Your task to perform on an android device: toggle sleep mode Image 0: 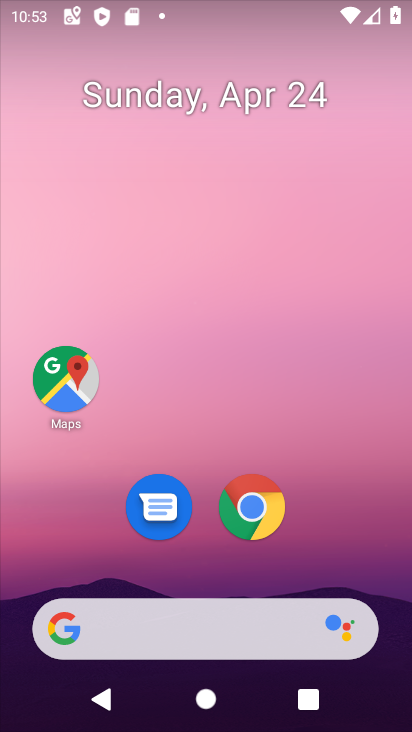
Step 0: drag from (359, 555) to (341, 101)
Your task to perform on an android device: toggle sleep mode Image 1: 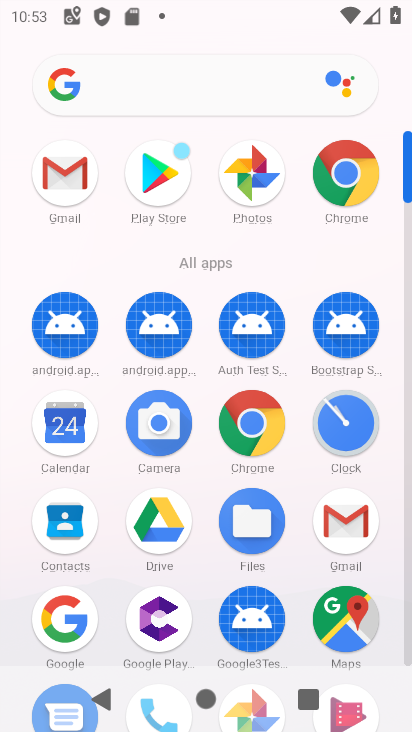
Step 1: drag from (323, 4) to (374, 685)
Your task to perform on an android device: toggle sleep mode Image 2: 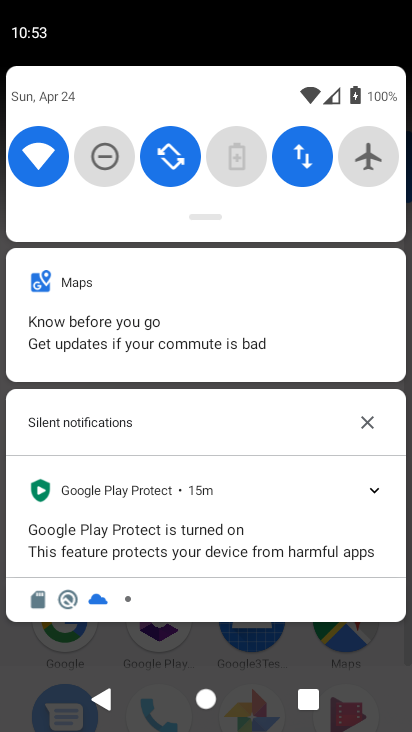
Step 2: drag from (201, 208) to (268, 639)
Your task to perform on an android device: toggle sleep mode Image 3: 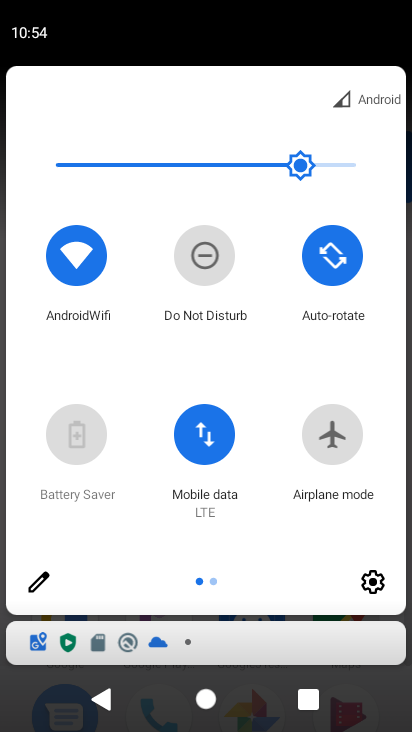
Step 3: click (37, 577)
Your task to perform on an android device: toggle sleep mode Image 4: 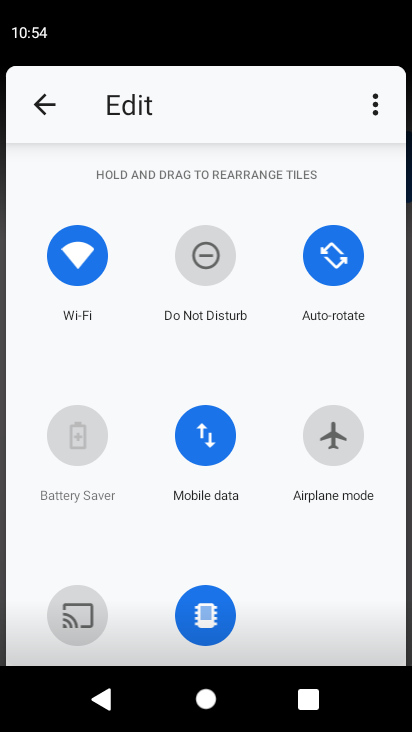
Step 4: task complete